Your task to perform on an android device: Show me recent news Image 0: 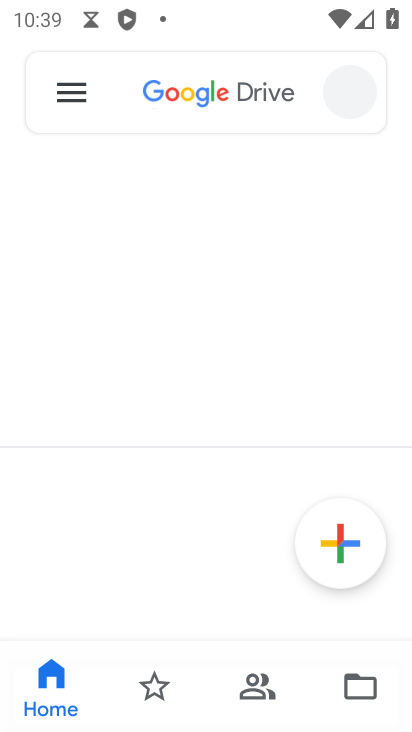
Step 0: drag from (222, 666) to (322, 224)
Your task to perform on an android device: Show me recent news Image 1: 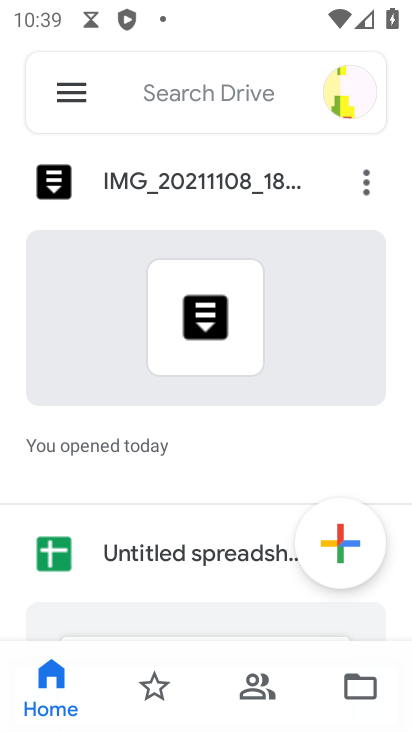
Step 1: task complete